Your task to perform on an android device: turn on javascript in the chrome app Image 0: 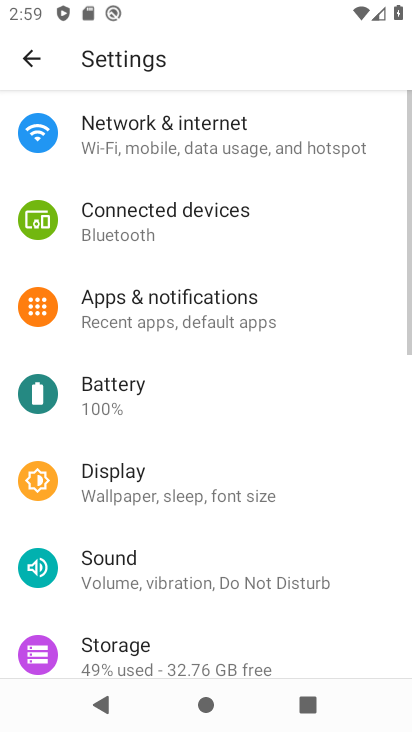
Step 0: press home button
Your task to perform on an android device: turn on javascript in the chrome app Image 1: 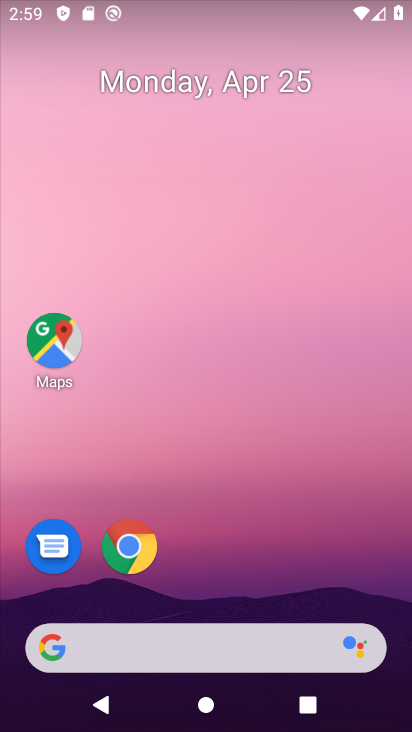
Step 1: click (128, 548)
Your task to perform on an android device: turn on javascript in the chrome app Image 2: 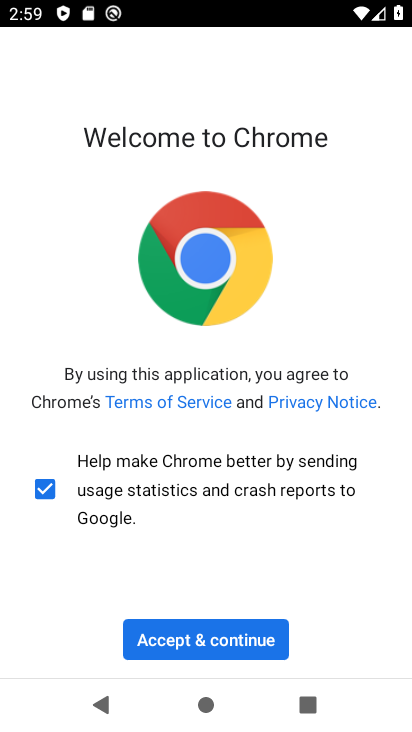
Step 2: click (182, 648)
Your task to perform on an android device: turn on javascript in the chrome app Image 3: 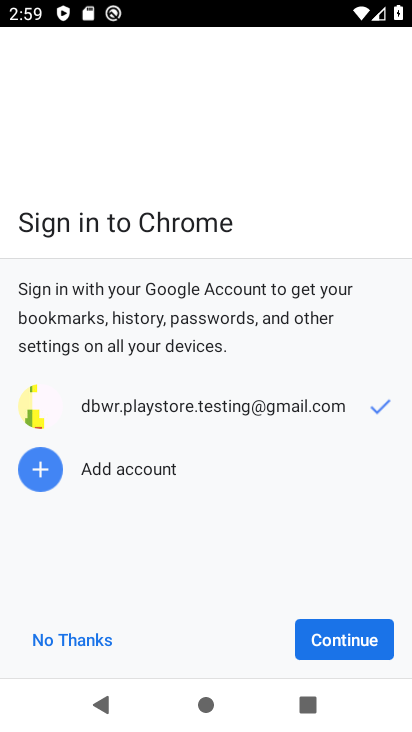
Step 3: click (348, 641)
Your task to perform on an android device: turn on javascript in the chrome app Image 4: 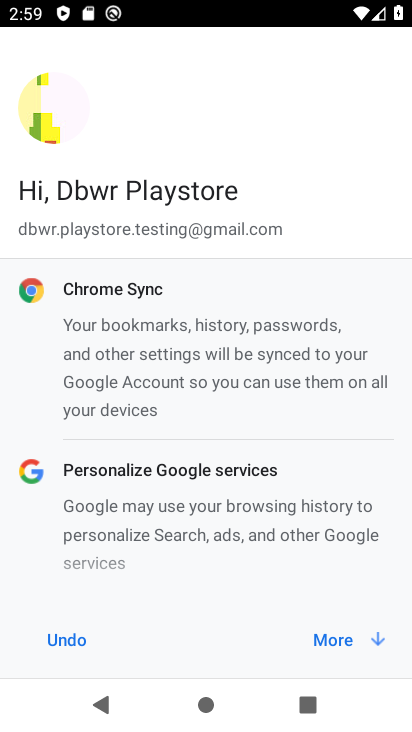
Step 4: click (348, 637)
Your task to perform on an android device: turn on javascript in the chrome app Image 5: 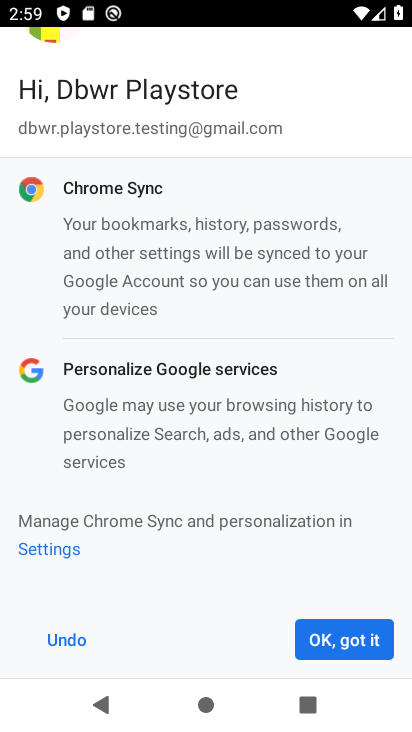
Step 5: click (352, 632)
Your task to perform on an android device: turn on javascript in the chrome app Image 6: 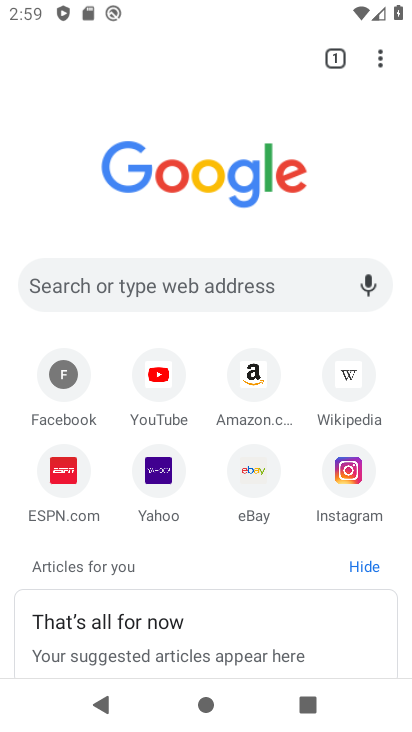
Step 6: click (383, 58)
Your task to perform on an android device: turn on javascript in the chrome app Image 7: 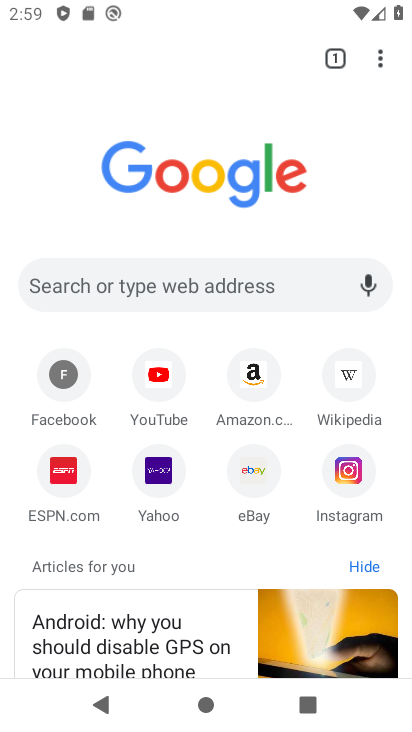
Step 7: click (383, 58)
Your task to perform on an android device: turn on javascript in the chrome app Image 8: 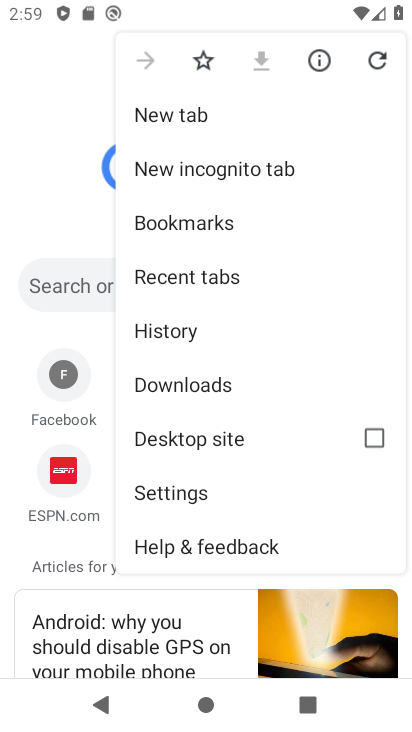
Step 8: click (218, 479)
Your task to perform on an android device: turn on javascript in the chrome app Image 9: 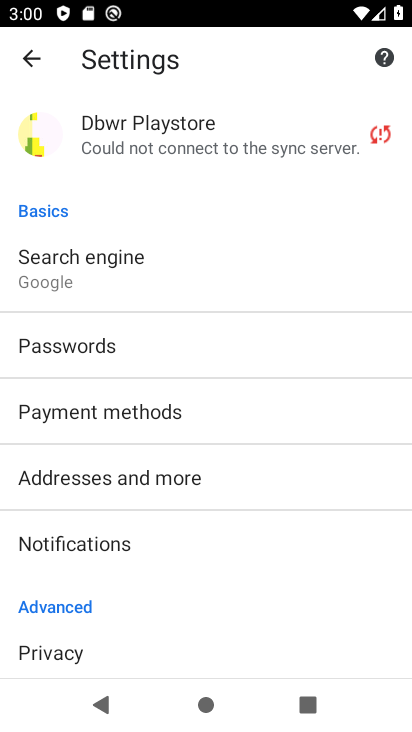
Step 9: drag from (180, 606) to (174, 342)
Your task to perform on an android device: turn on javascript in the chrome app Image 10: 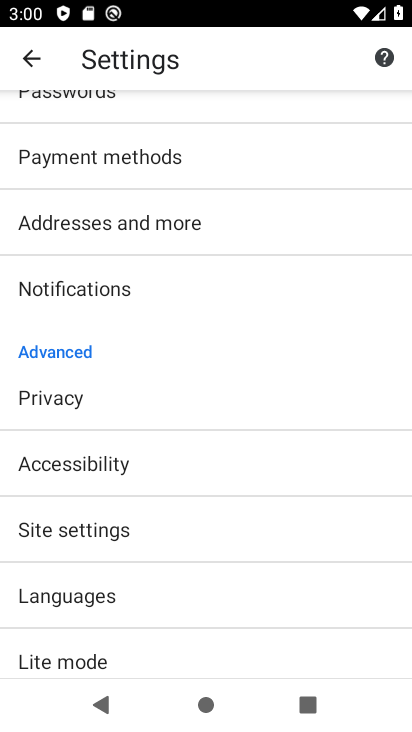
Step 10: click (102, 530)
Your task to perform on an android device: turn on javascript in the chrome app Image 11: 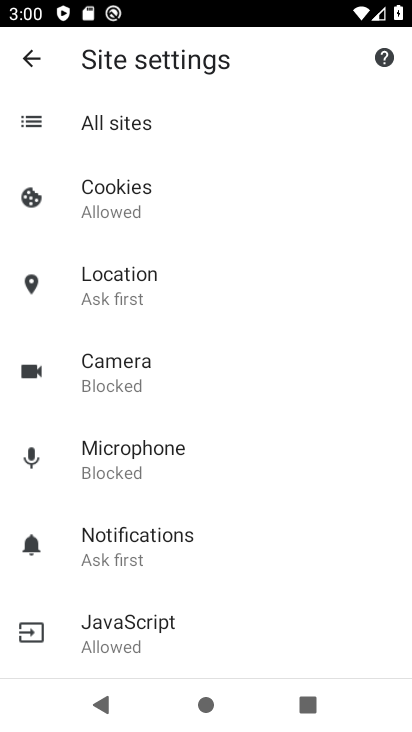
Step 11: click (170, 626)
Your task to perform on an android device: turn on javascript in the chrome app Image 12: 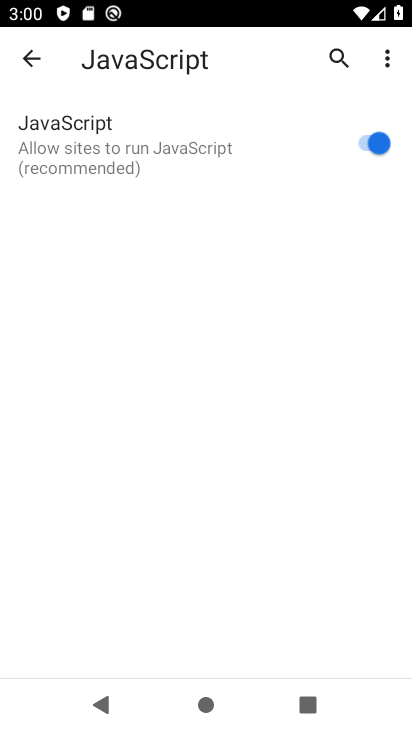
Step 12: task complete